Your task to perform on an android device: set an alarm Image 0: 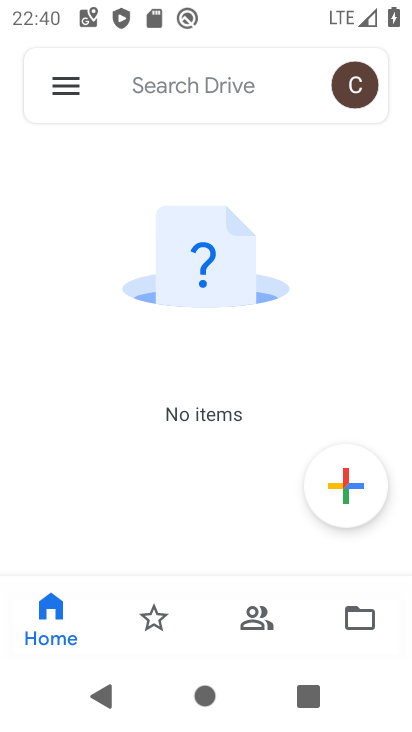
Step 0: press back button
Your task to perform on an android device: set an alarm Image 1: 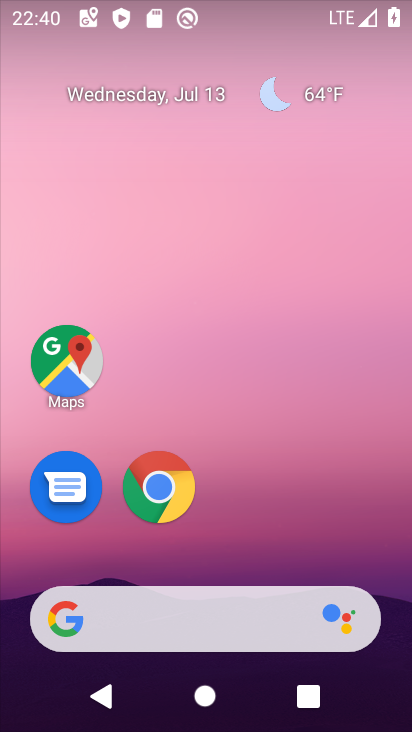
Step 1: drag from (232, 557) to (258, 47)
Your task to perform on an android device: set an alarm Image 2: 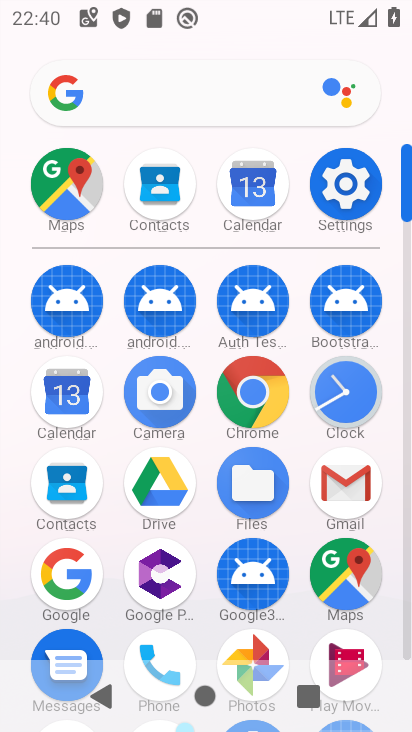
Step 2: click (347, 365)
Your task to perform on an android device: set an alarm Image 3: 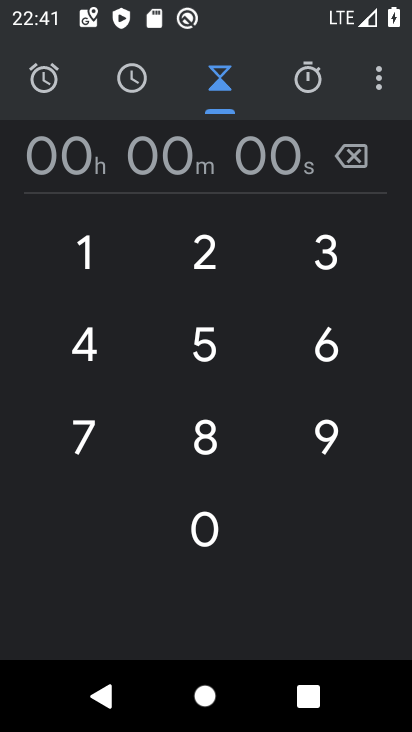
Step 3: click (36, 88)
Your task to perform on an android device: set an alarm Image 4: 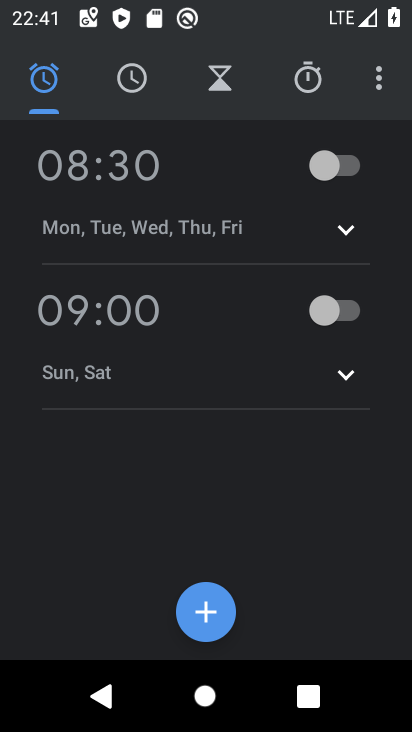
Step 4: click (346, 167)
Your task to perform on an android device: set an alarm Image 5: 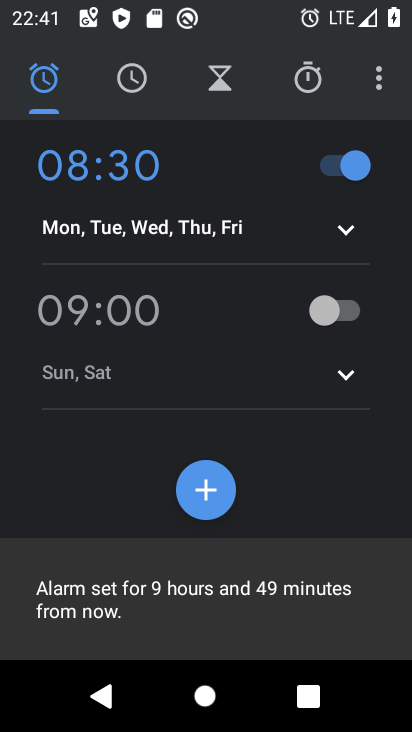
Step 5: task complete